Your task to perform on an android device: Open Maps and search for coffee Image 0: 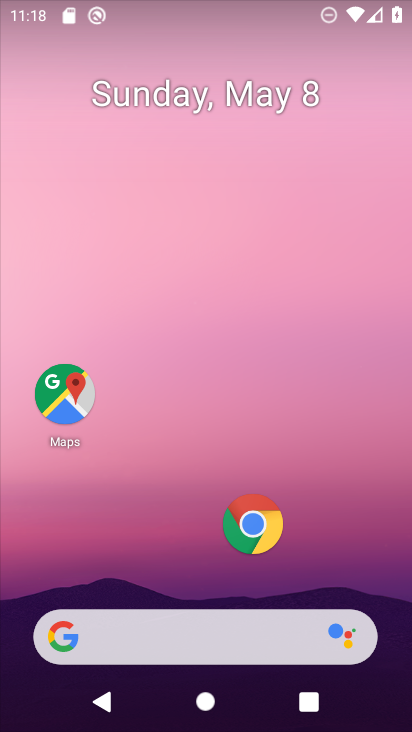
Step 0: click (52, 389)
Your task to perform on an android device: Open Maps and search for coffee Image 1: 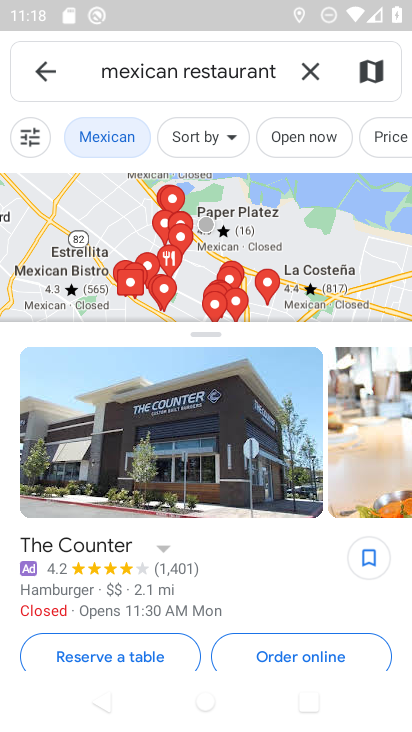
Step 1: click (305, 68)
Your task to perform on an android device: Open Maps and search for coffee Image 2: 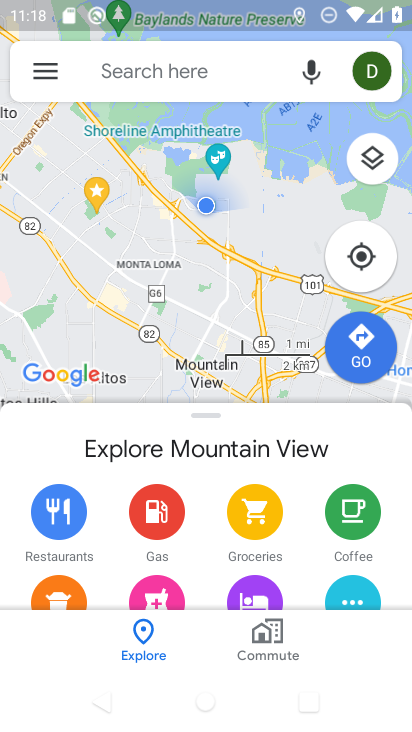
Step 2: click (266, 67)
Your task to perform on an android device: Open Maps and search for coffee Image 3: 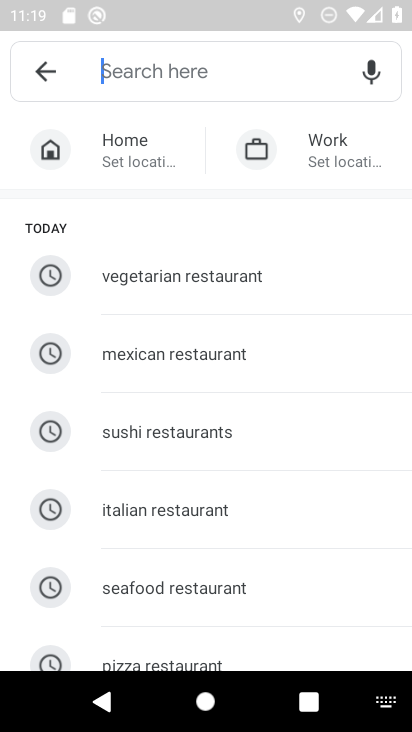
Step 3: type "coffee"
Your task to perform on an android device: Open Maps and search for coffee Image 4: 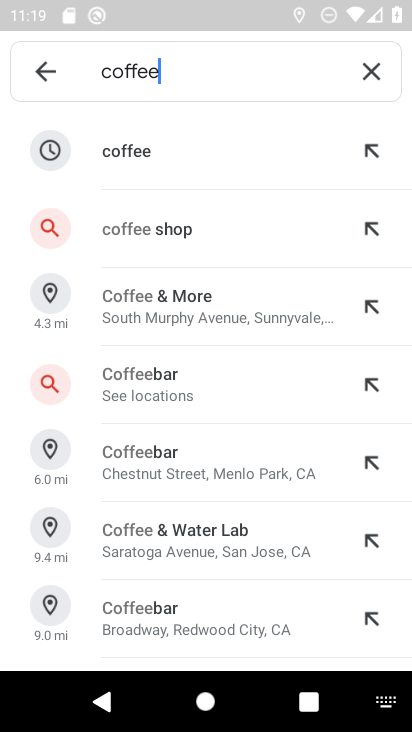
Step 4: click (110, 149)
Your task to perform on an android device: Open Maps and search for coffee Image 5: 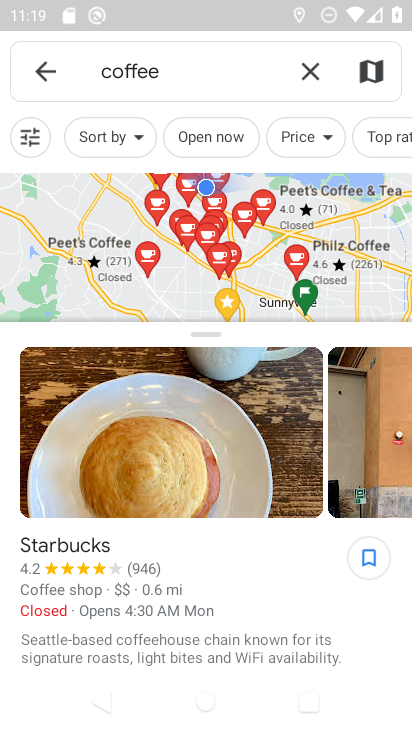
Step 5: task complete